Your task to perform on an android device: Go to CNN.com Image 0: 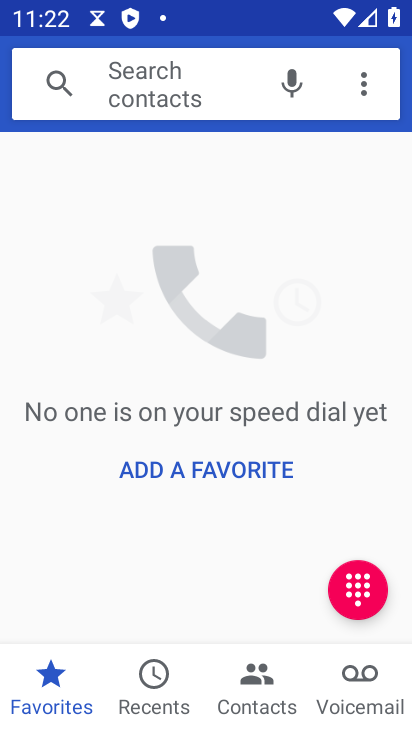
Step 0: press home button
Your task to perform on an android device: Go to CNN.com Image 1: 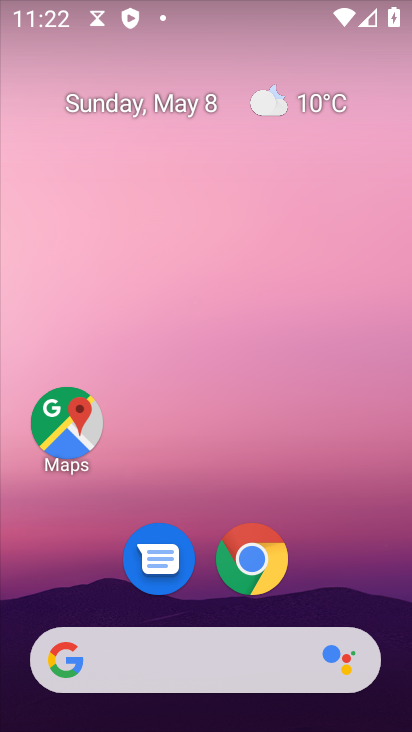
Step 1: click (254, 530)
Your task to perform on an android device: Go to CNN.com Image 2: 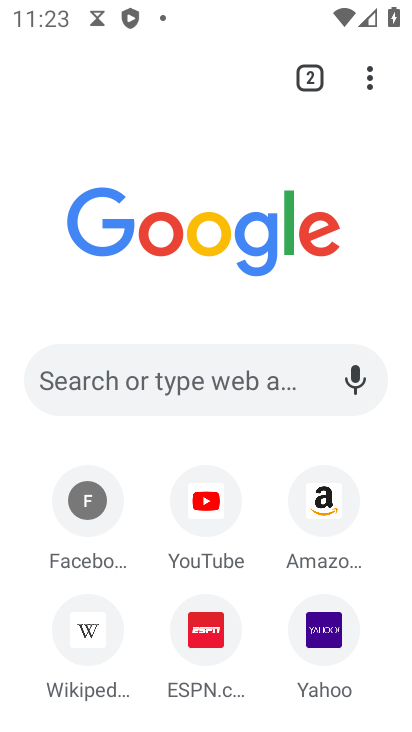
Step 2: click (161, 375)
Your task to perform on an android device: Go to CNN.com Image 3: 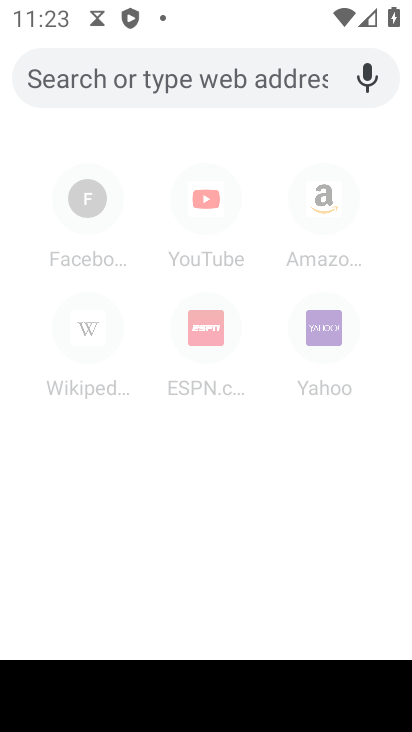
Step 3: type "CNN.com"
Your task to perform on an android device: Go to CNN.com Image 4: 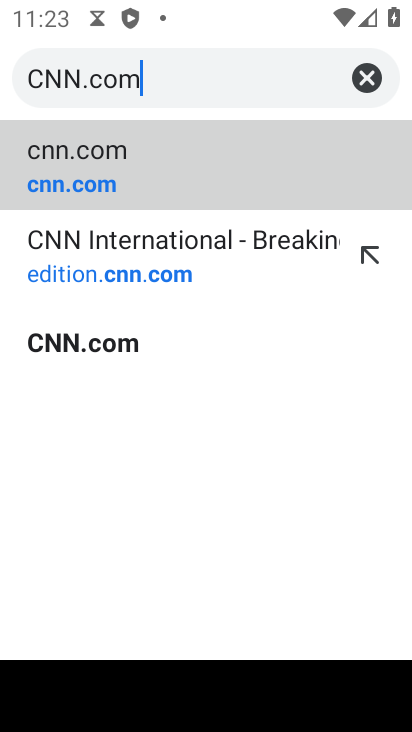
Step 4: drag from (138, 111) to (128, 162)
Your task to perform on an android device: Go to CNN.com Image 5: 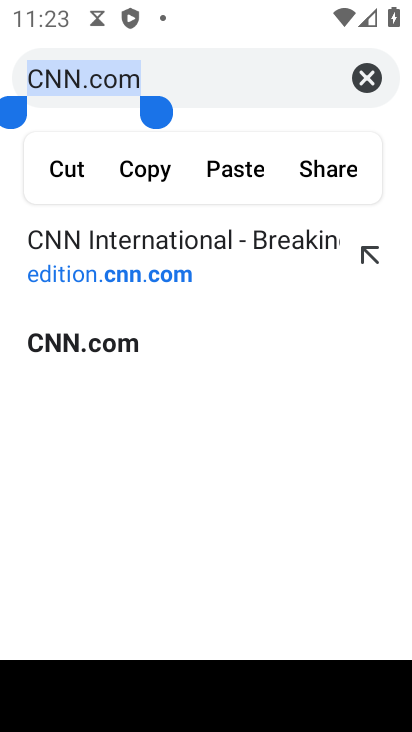
Step 5: click (133, 344)
Your task to perform on an android device: Go to CNN.com Image 6: 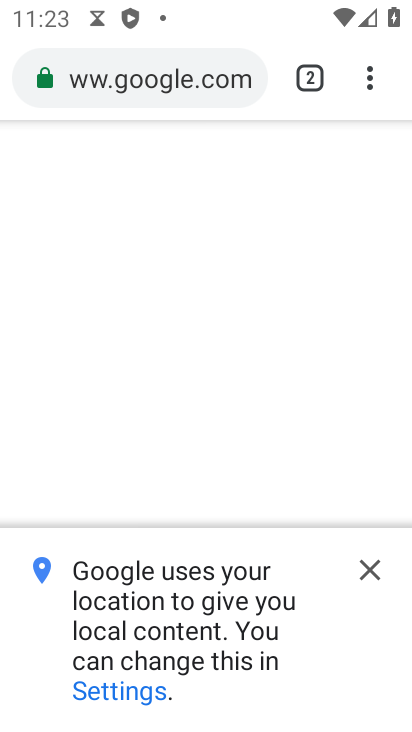
Step 6: click (376, 579)
Your task to perform on an android device: Go to CNN.com Image 7: 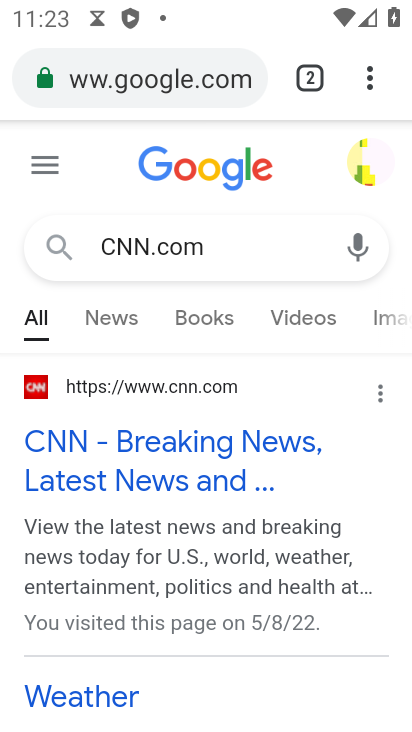
Step 7: task complete